Your task to perform on an android device: set the timer Image 0: 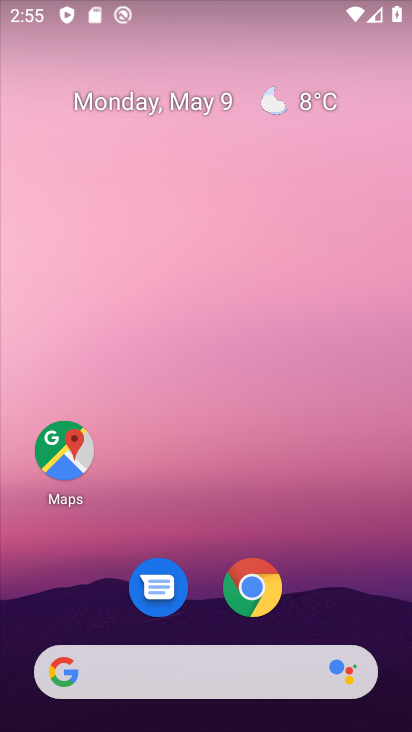
Step 0: drag from (145, 516) to (232, 171)
Your task to perform on an android device: set the timer Image 1: 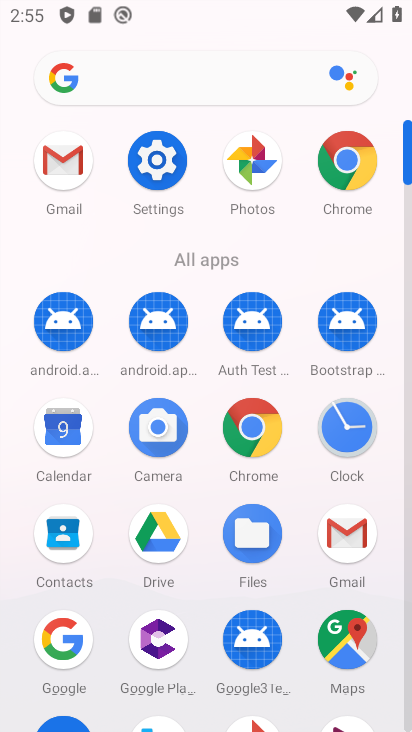
Step 1: click (335, 462)
Your task to perform on an android device: set the timer Image 2: 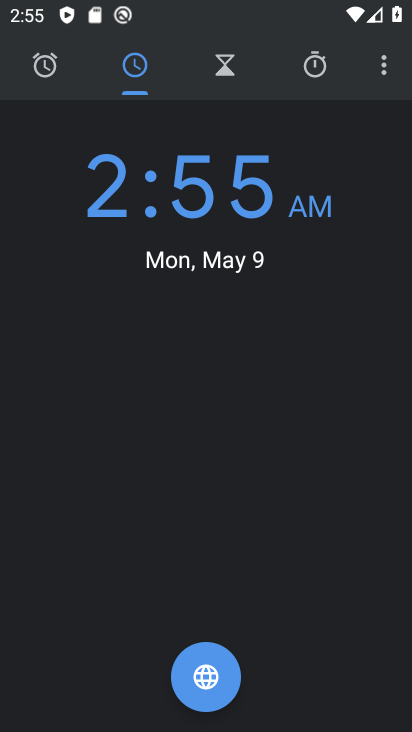
Step 2: click (228, 77)
Your task to perform on an android device: set the timer Image 3: 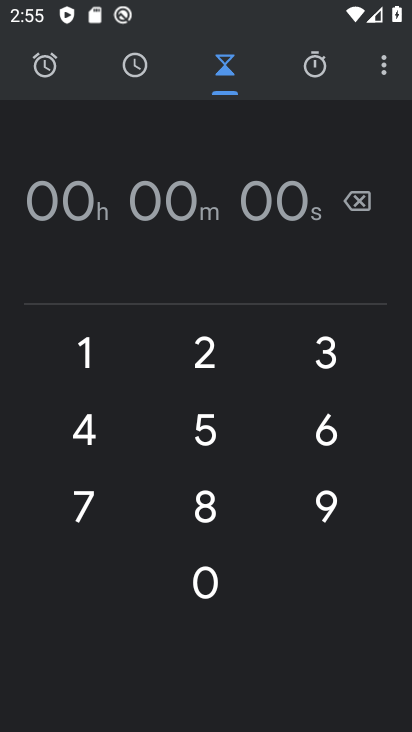
Step 3: click (202, 466)
Your task to perform on an android device: set the timer Image 4: 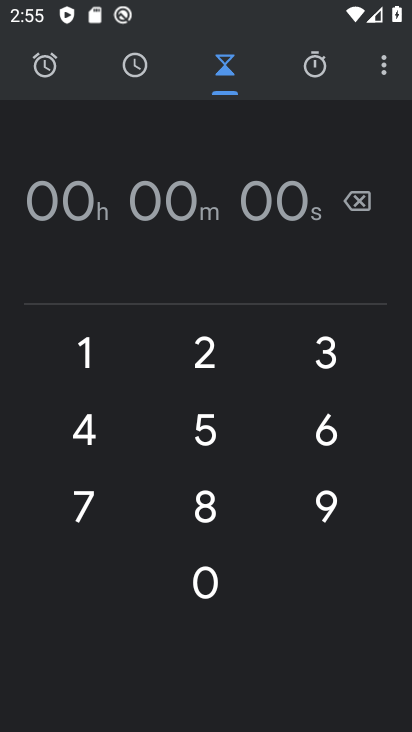
Step 4: click (205, 494)
Your task to perform on an android device: set the timer Image 5: 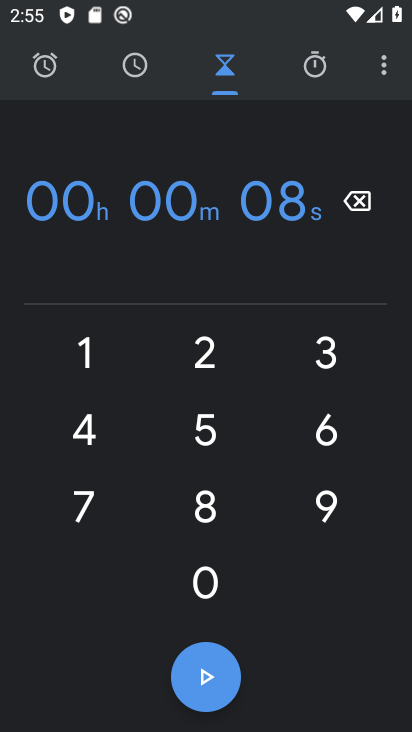
Step 5: click (230, 445)
Your task to perform on an android device: set the timer Image 6: 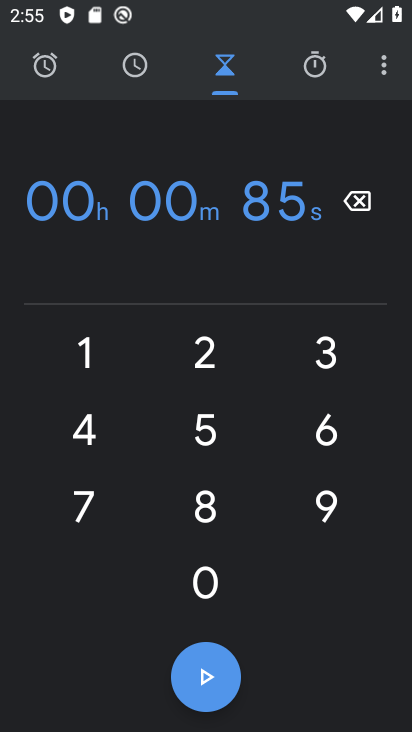
Step 6: click (229, 446)
Your task to perform on an android device: set the timer Image 7: 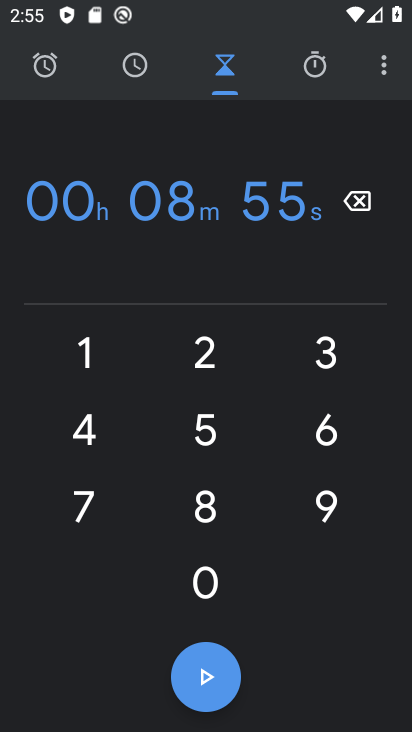
Step 7: click (201, 689)
Your task to perform on an android device: set the timer Image 8: 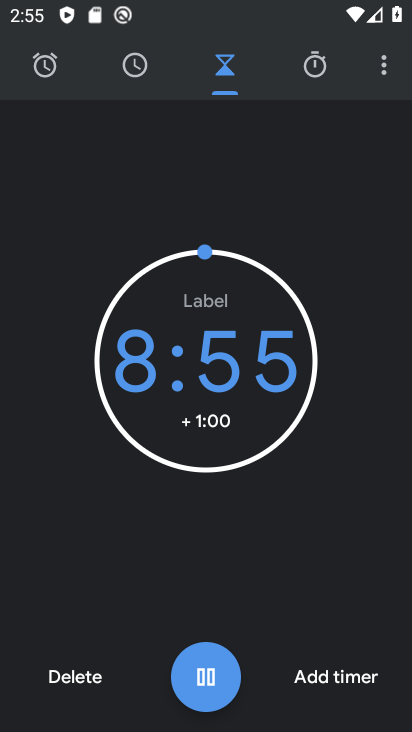
Step 8: task complete